Your task to perform on an android device: Search for vegetarian restaurants on Maps Image 0: 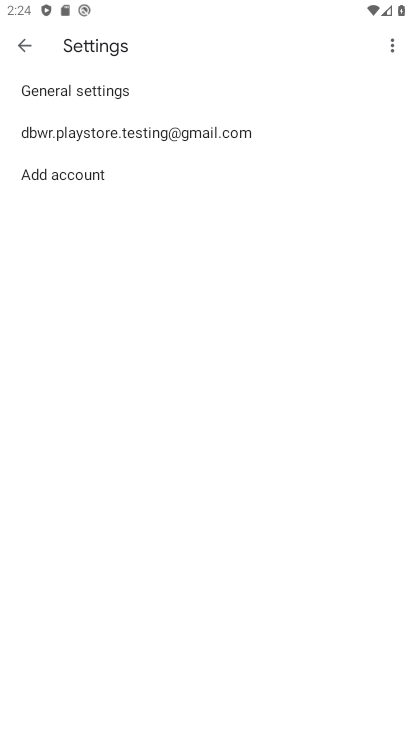
Step 0: press home button
Your task to perform on an android device: Search for vegetarian restaurants on Maps Image 1: 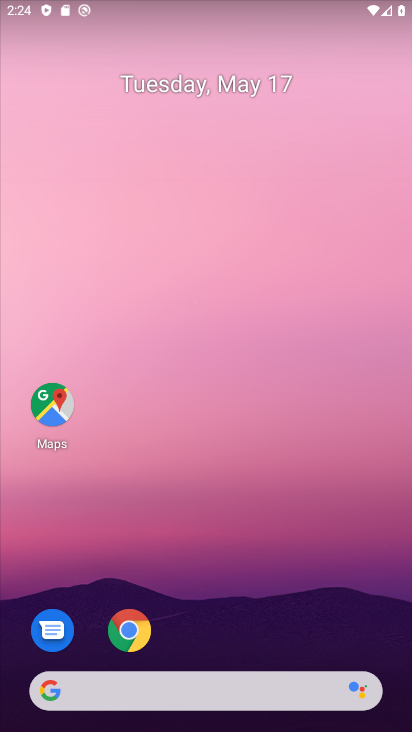
Step 1: click (50, 414)
Your task to perform on an android device: Search for vegetarian restaurants on Maps Image 2: 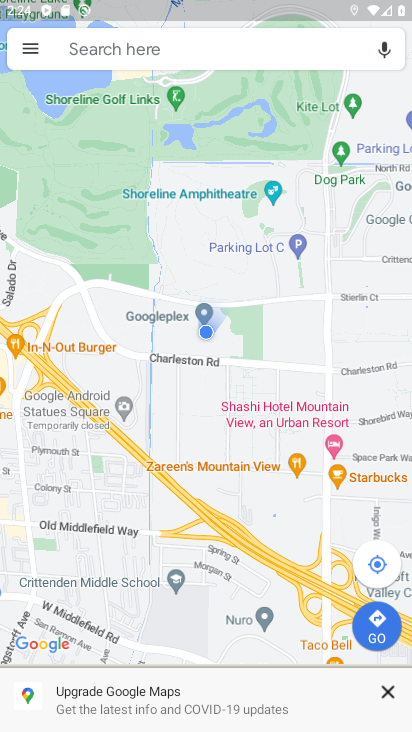
Step 2: click (149, 52)
Your task to perform on an android device: Search for vegetarian restaurants on Maps Image 3: 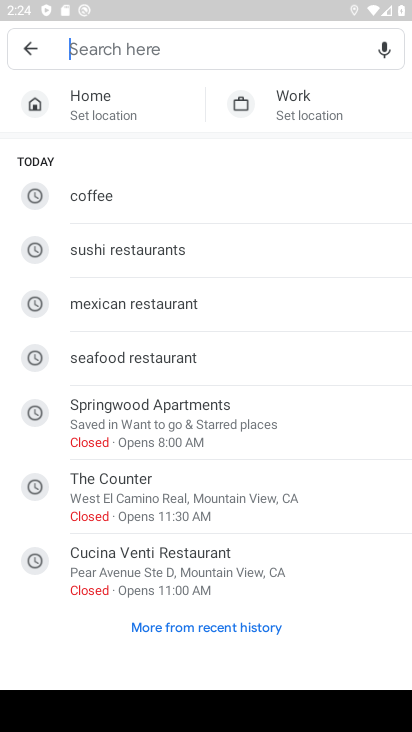
Step 3: click (171, 623)
Your task to perform on an android device: Search for vegetarian restaurants on Maps Image 4: 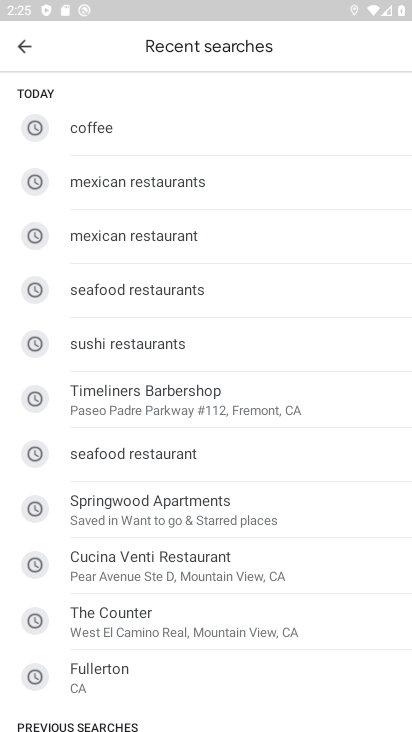
Step 4: drag from (144, 668) to (172, 274)
Your task to perform on an android device: Search for vegetarian restaurants on Maps Image 5: 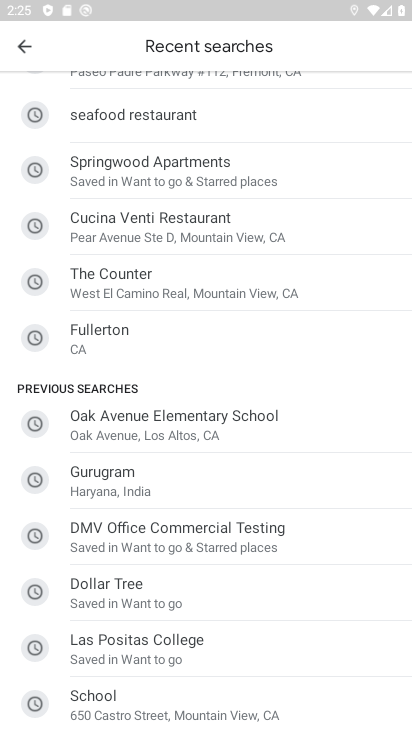
Step 5: drag from (104, 709) to (150, 283)
Your task to perform on an android device: Search for vegetarian restaurants on Maps Image 6: 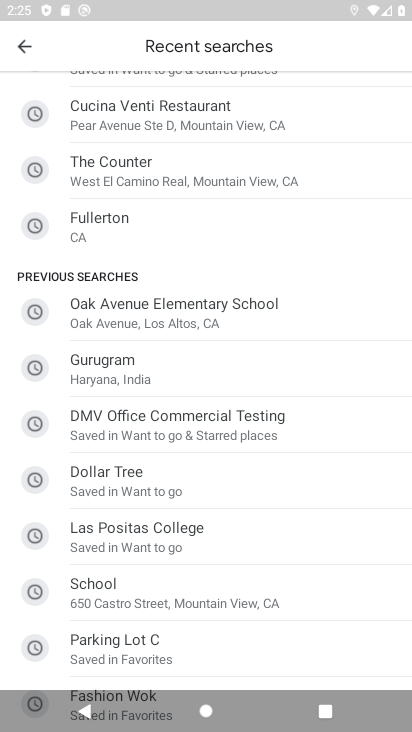
Step 6: drag from (79, 668) to (186, 179)
Your task to perform on an android device: Search for vegetarian restaurants on Maps Image 7: 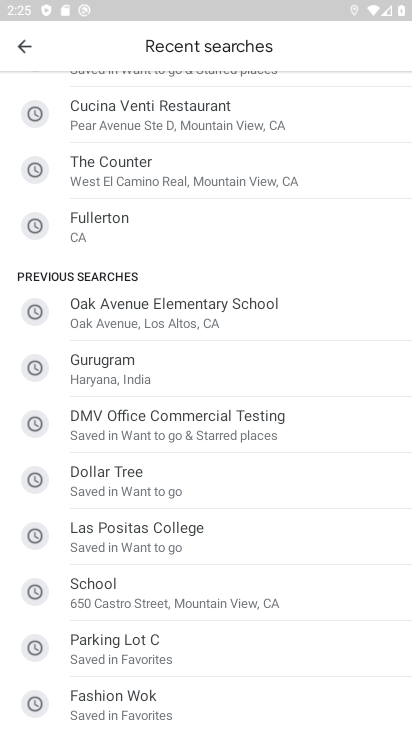
Step 7: drag from (189, 113) to (249, 463)
Your task to perform on an android device: Search for vegetarian restaurants on Maps Image 8: 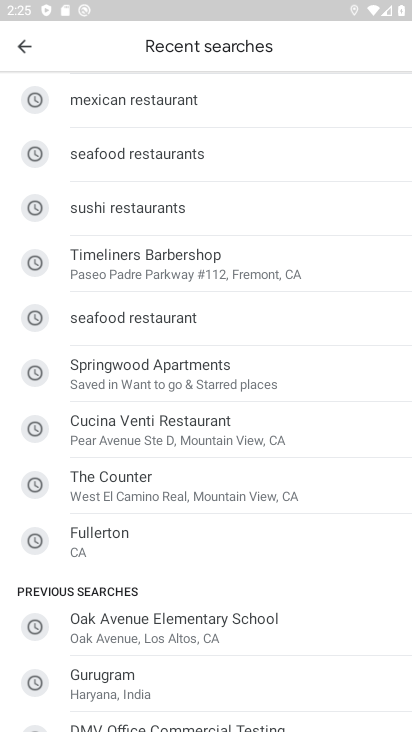
Step 8: drag from (246, 193) to (310, 512)
Your task to perform on an android device: Search for vegetarian restaurants on Maps Image 9: 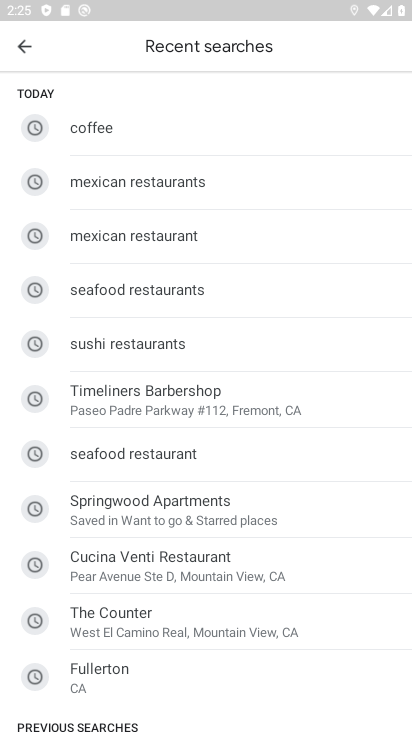
Step 9: type "vegetarian restaurants"
Your task to perform on an android device: Search for vegetarian restaurants on Maps Image 10: 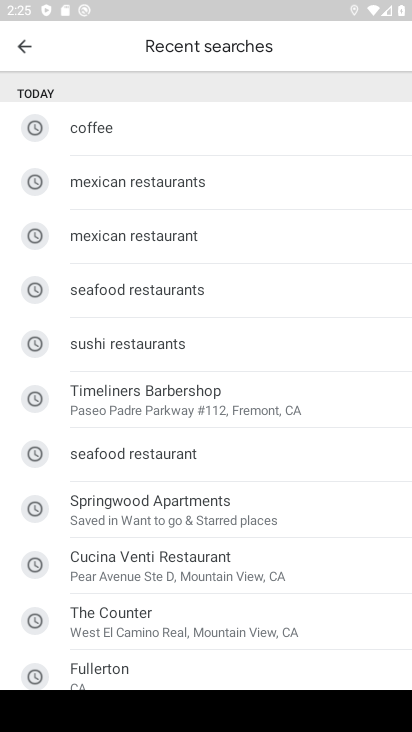
Step 10: drag from (111, 668) to (193, 209)
Your task to perform on an android device: Search for vegetarian restaurants on Maps Image 11: 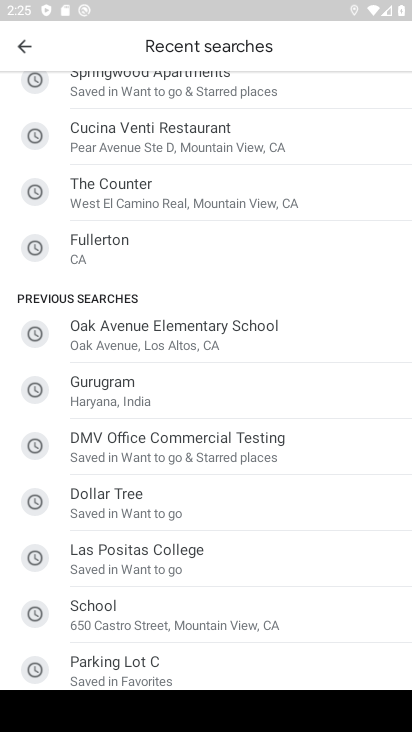
Step 11: drag from (170, 643) to (151, 241)
Your task to perform on an android device: Search for vegetarian restaurants on Maps Image 12: 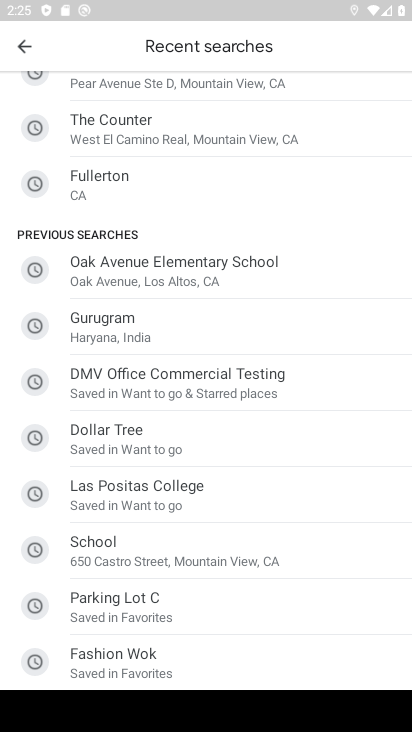
Step 12: drag from (138, 149) to (137, 622)
Your task to perform on an android device: Search for vegetarian restaurants on Maps Image 13: 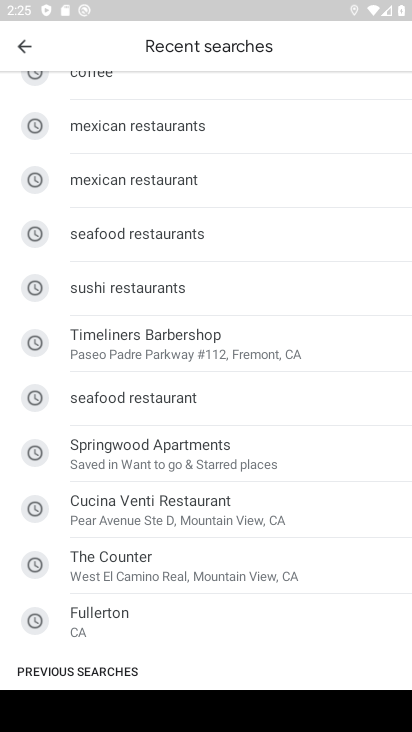
Step 13: drag from (177, 177) to (214, 511)
Your task to perform on an android device: Search for vegetarian restaurants on Maps Image 14: 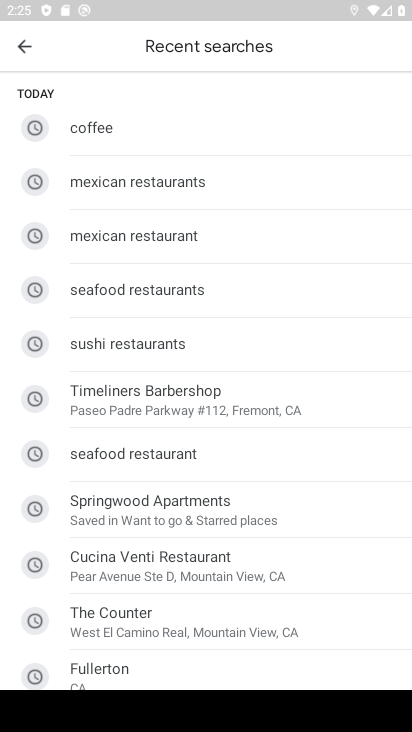
Step 14: click (22, 43)
Your task to perform on an android device: Search for vegetarian restaurants on Maps Image 15: 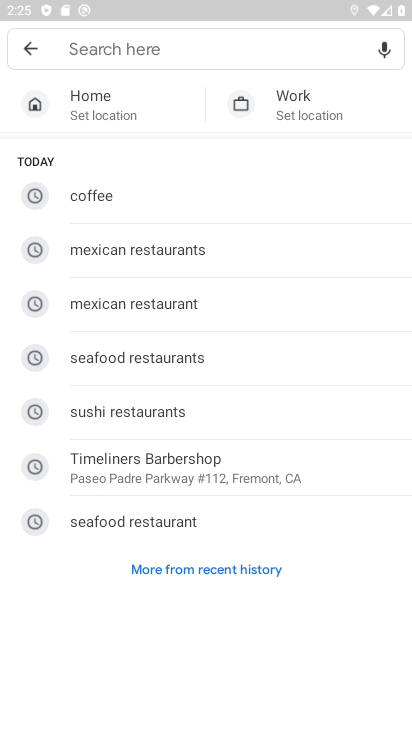
Step 15: click (114, 51)
Your task to perform on an android device: Search for vegetarian restaurants on Maps Image 16: 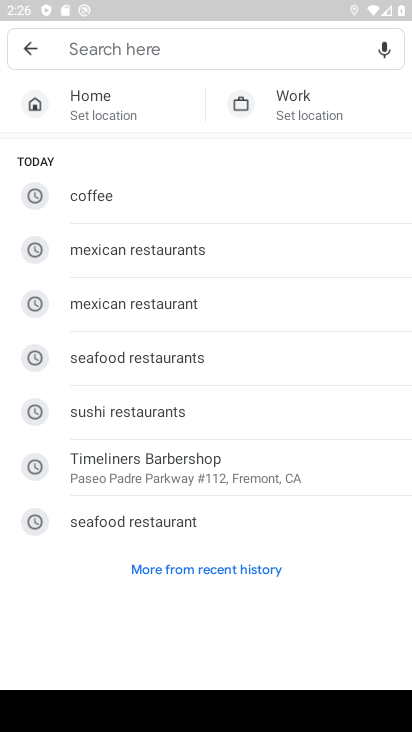
Step 16: type "vegetarian restaurants"
Your task to perform on an android device: Search for vegetarian restaurants on Maps Image 17: 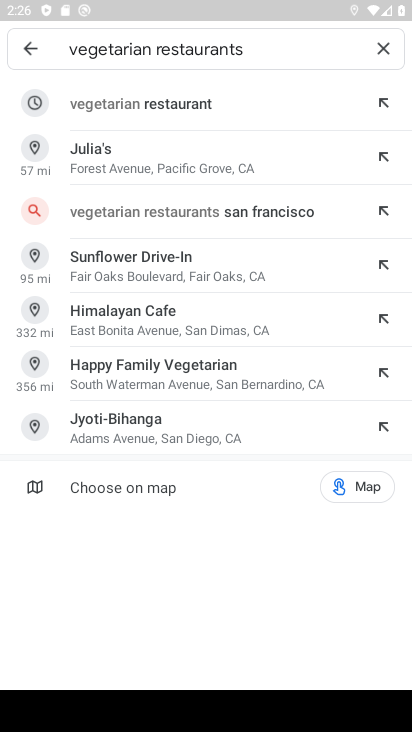
Step 17: click (161, 105)
Your task to perform on an android device: Search for vegetarian restaurants on Maps Image 18: 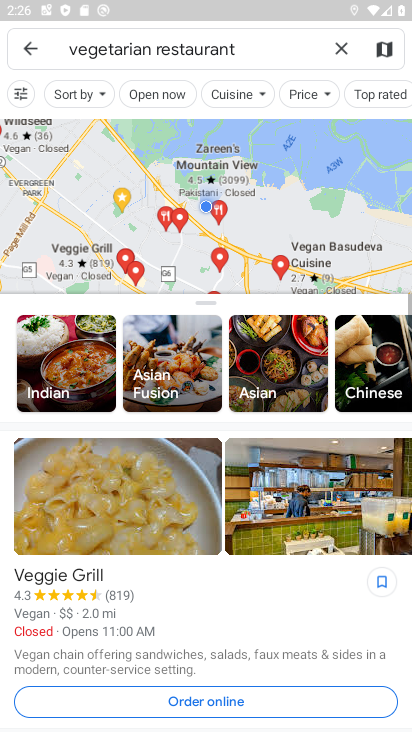
Step 18: task complete